Your task to perform on an android device: Open Google Maps and go to "Timeline" Image 0: 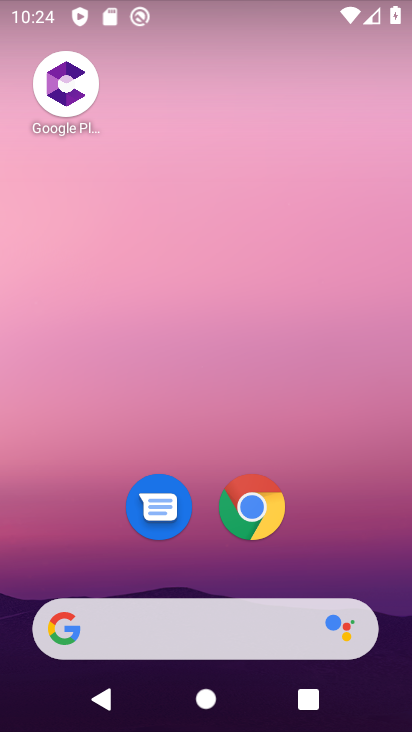
Step 0: drag from (218, 599) to (212, 233)
Your task to perform on an android device: Open Google Maps and go to "Timeline" Image 1: 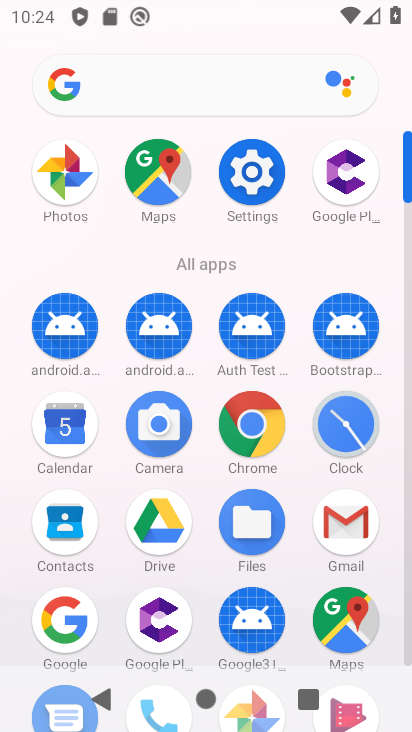
Step 1: click (328, 631)
Your task to perform on an android device: Open Google Maps and go to "Timeline" Image 2: 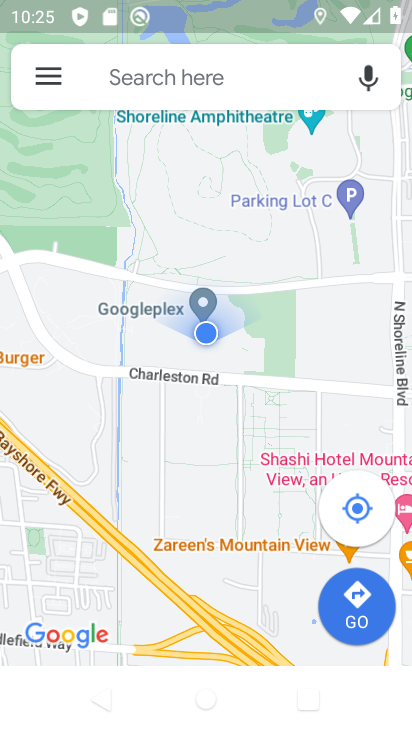
Step 2: click (52, 74)
Your task to perform on an android device: Open Google Maps and go to "Timeline" Image 3: 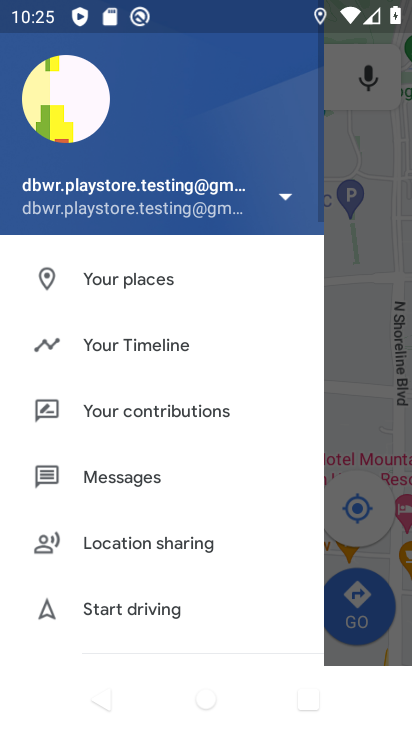
Step 3: click (138, 355)
Your task to perform on an android device: Open Google Maps and go to "Timeline" Image 4: 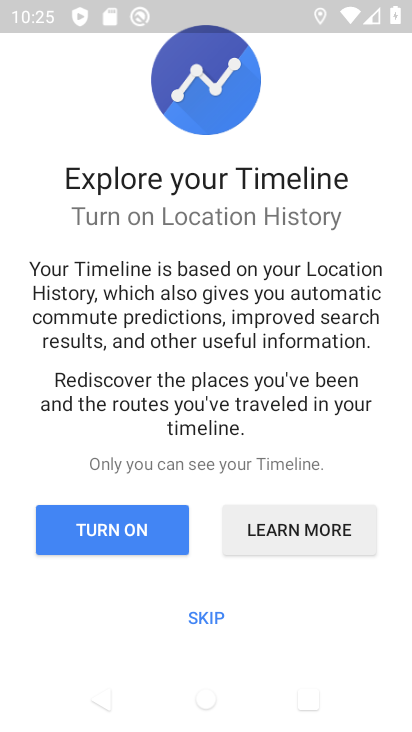
Step 4: click (135, 534)
Your task to perform on an android device: Open Google Maps and go to "Timeline" Image 5: 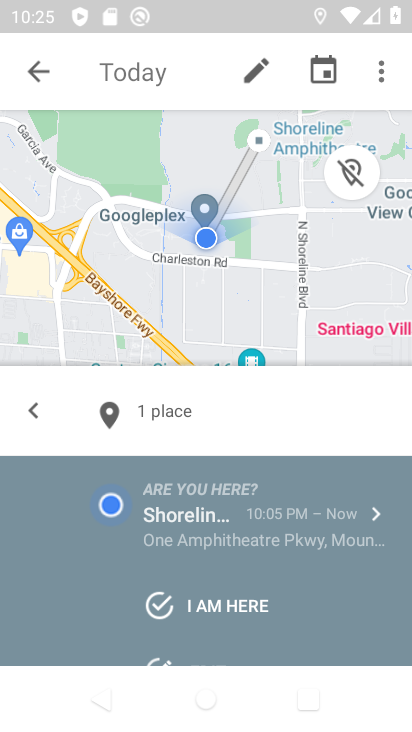
Step 5: task complete